Your task to perform on an android device: Open the web browser Image 0: 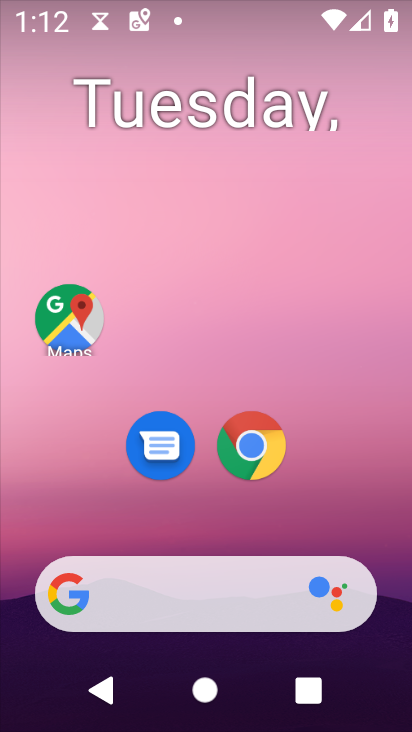
Step 0: drag from (257, 544) to (306, 51)
Your task to perform on an android device: Open the web browser Image 1: 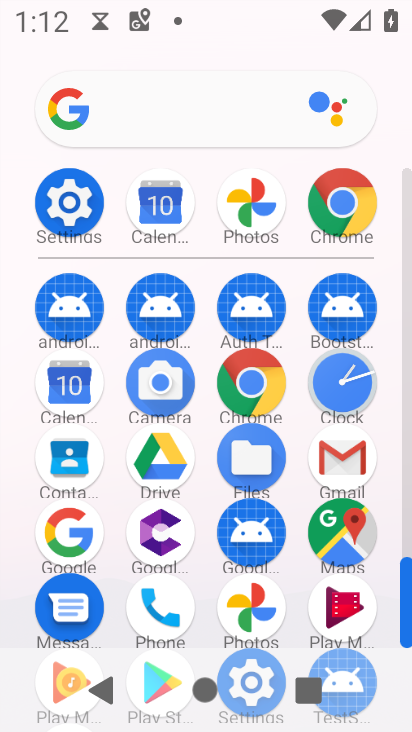
Step 1: click (262, 358)
Your task to perform on an android device: Open the web browser Image 2: 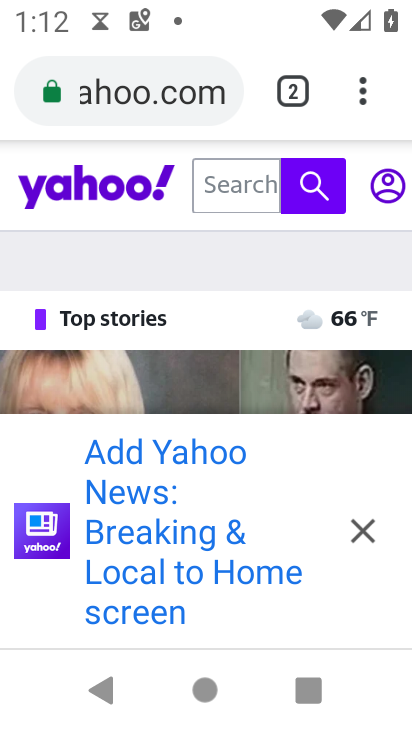
Step 2: click (369, 100)
Your task to perform on an android device: Open the web browser Image 3: 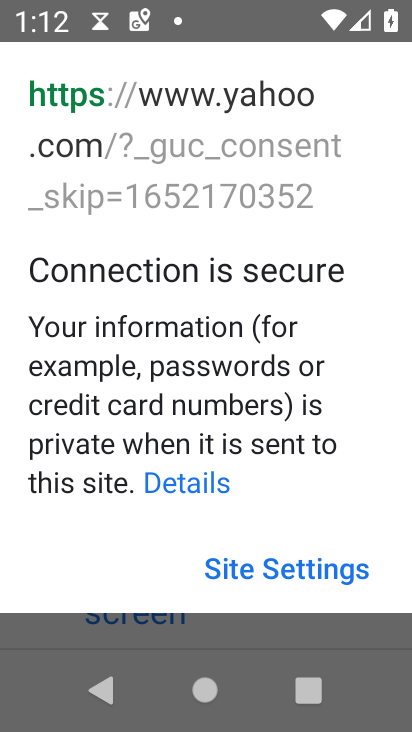
Step 3: task complete